Your task to perform on an android device: Search for "lg ultragear" on ebay, select the first entry, and add it to the cart. Image 0: 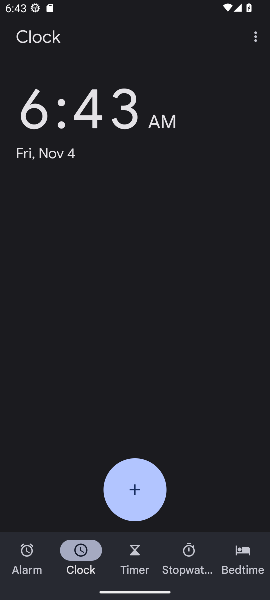
Step 0: press home button
Your task to perform on an android device: Search for "lg ultragear" on ebay, select the first entry, and add it to the cart. Image 1: 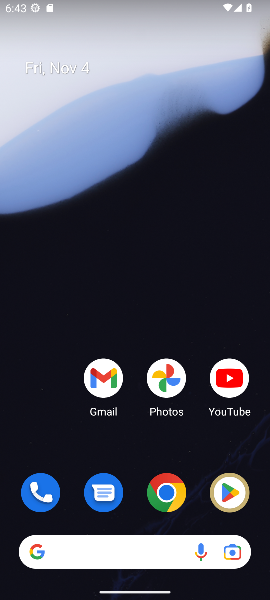
Step 1: drag from (133, 423) to (135, 27)
Your task to perform on an android device: Search for "lg ultragear" on ebay, select the first entry, and add it to the cart. Image 2: 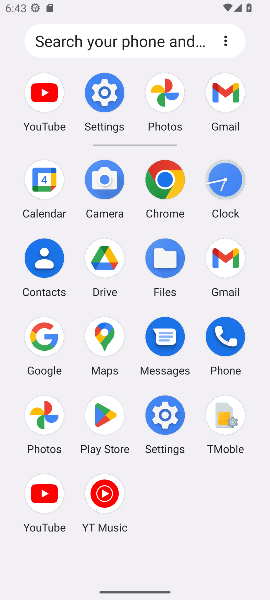
Step 2: click (167, 179)
Your task to perform on an android device: Search for "lg ultragear" on ebay, select the first entry, and add it to the cart. Image 3: 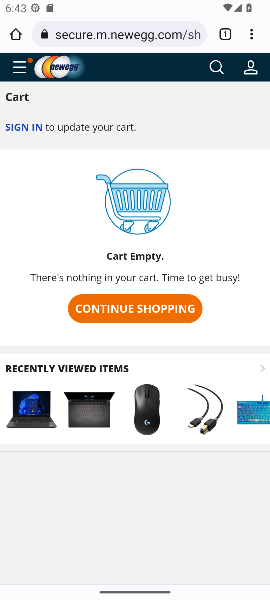
Step 3: click (170, 41)
Your task to perform on an android device: Search for "lg ultragear" on ebay, select the first entry, and add it to the cart. Image 4: 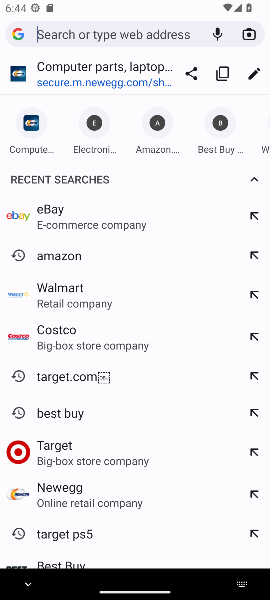
Step 4: type "ebay.com"
Your task to perform on an android device: Search for "lg ultragear" on ebay, select the first entry, and add it to the cart. Image 5: 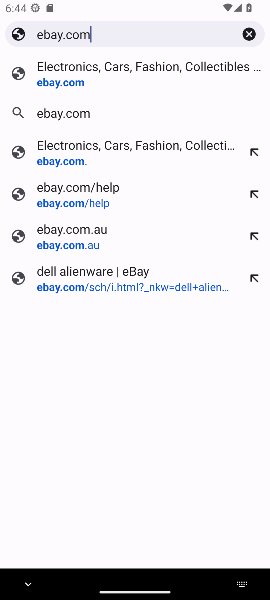
Step 5: press enter
Your task to perform on an android device: Search for "lg ultragear" on ebay, select the first entry, and add it to the cart. Image 6: 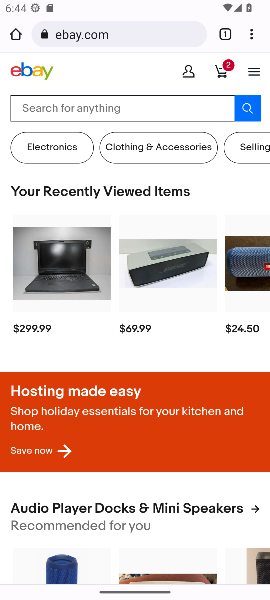
Step 6: click (173, 110)
Your task to perform on an android device: Search for "lg ultragear" on ebay, select the first entry, and add it to the cart. Image 7: 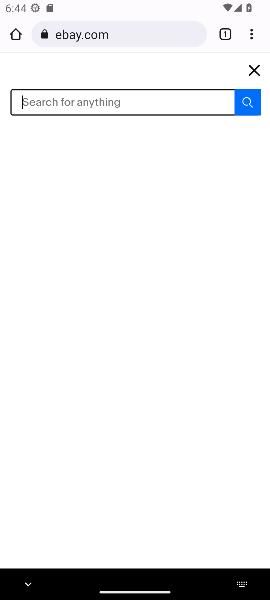
Step 7: type "lg ultragear"
Your task to perform on an android device: Search for "lg ultragear" on ebay, select the first entry, and add it to the cart. Image 8: 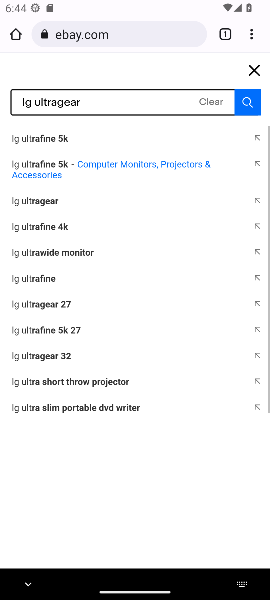
Step 8: press enter
Your task to perform on an android device: Search for "lg ultragear" on ebay, select the first entry, and add it to the cart. Image 9: 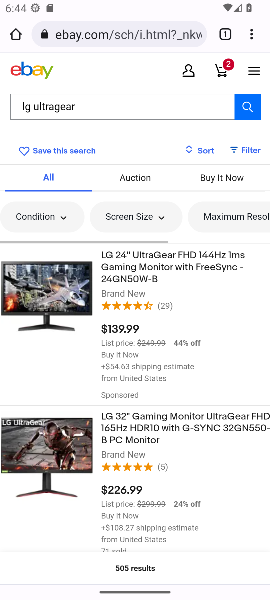
Step 9: click (40, 284)
Your task to perform on an android device: Search for "lg ultragear" on ebay, select the first entry, and add it to the cart. Image 10: 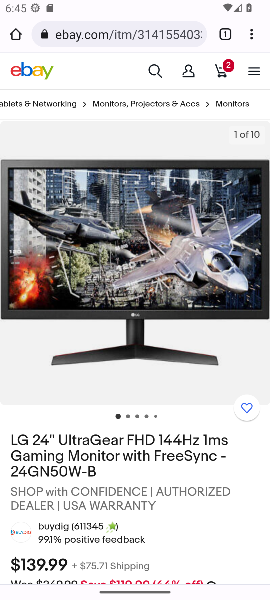
Step 10: drag from (187, 473) to (173, 133)
Your task to perform on an android device: Search for "lg ultragear" on ebay, select the first entry, and add it to the cart. Image 11: 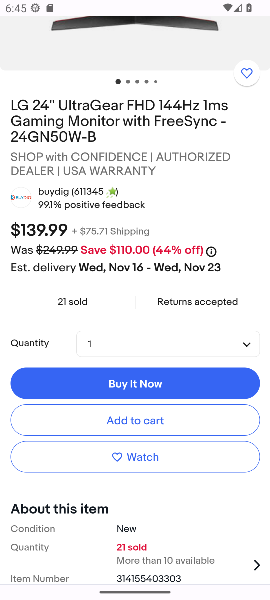
Step 11: click (161, 419)
Your task to perform on an android device: Search for "lg ultragear" on ebay, select the first entry, and add it to the cart. Image 12: 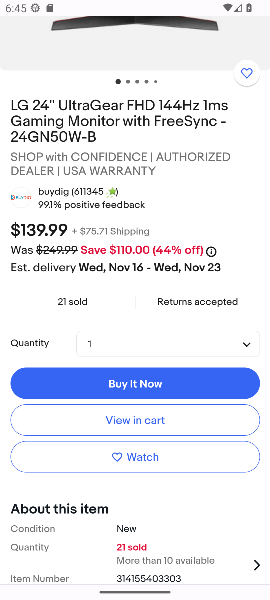
Step 12: task complete